Your task to perform on an android device: toggle improve location accuracy Image 0: 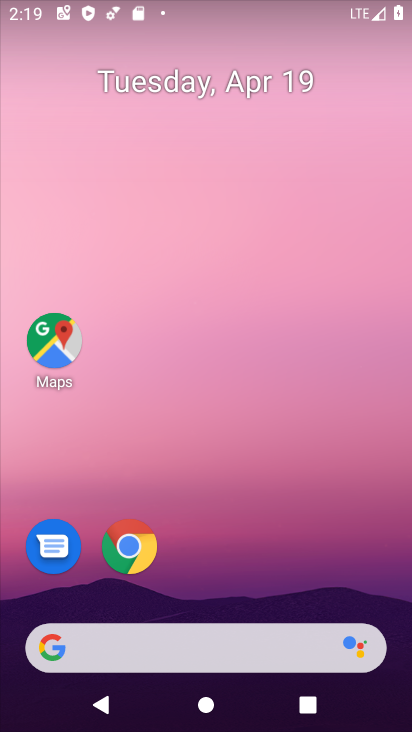
Step 0: click (131, 572)
Your task to perform on an android device: toggle improve location accuracy Image 1: 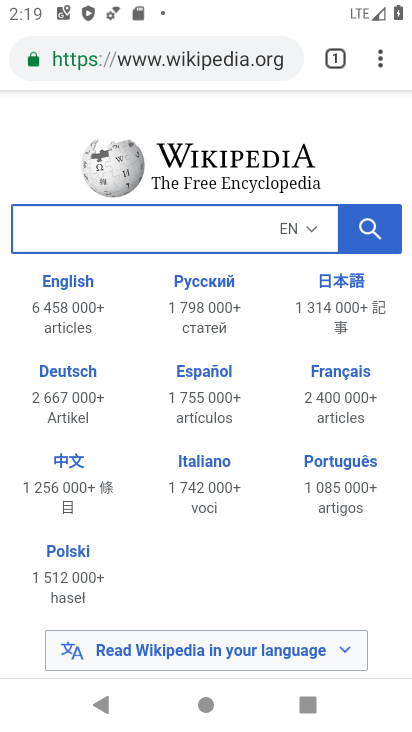
Step 1: press home button
Your task to perform on an android device: toggle improve location accuracy Image 2: 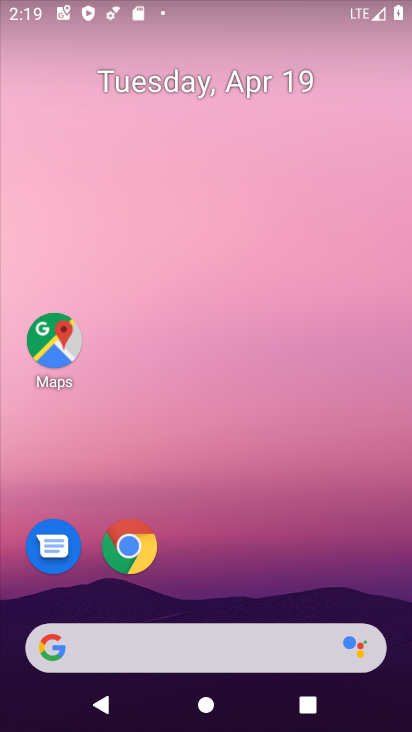
Step 2: drag from (143, 635) to (232, 91)
Your task to perform on an android device: toggle improve location accuracy Image 3: 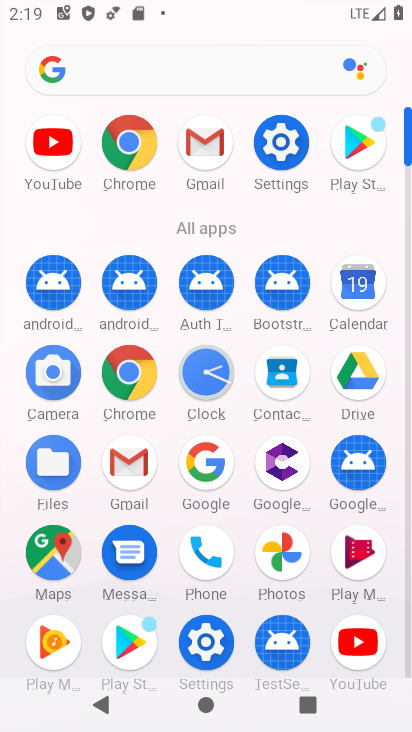
Step 3: click (292, 144)
Your task to perform on an android device: toggle improve location accuracy Image 4: 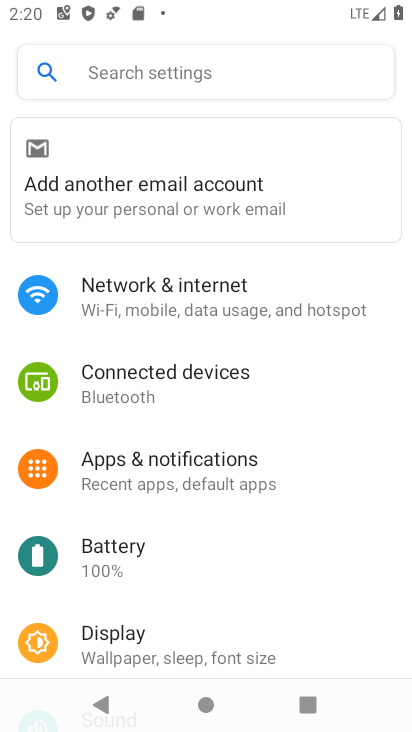
Step 4: drag from (134, 490) to (135, 133)
Your task to perform on an android device: toggle improve location accuracy Image 5: 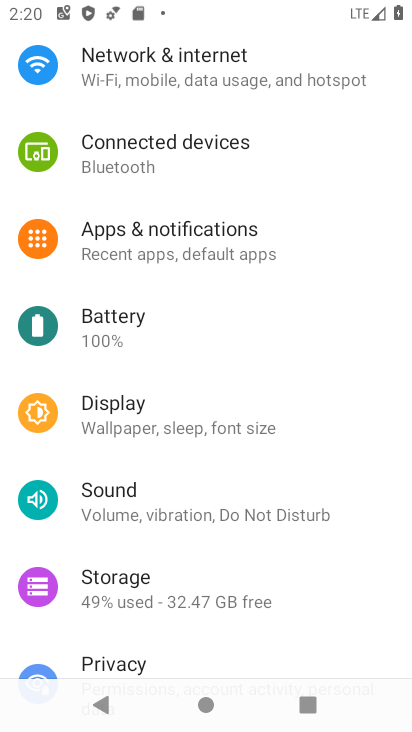
Step 5: drag from (163, 584) to (205, 169)
Your task to perform on an android device: toggle improve location accuracy Image 6: 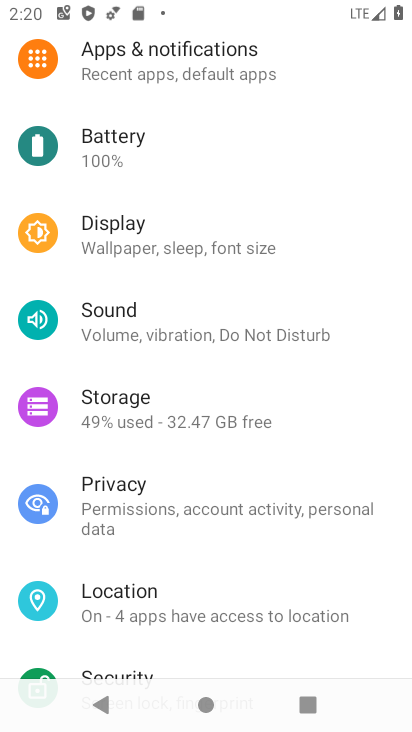
Step 6: click (101, 598)
Your task to perform on an android device: toggle improve location accuracy Image 7: 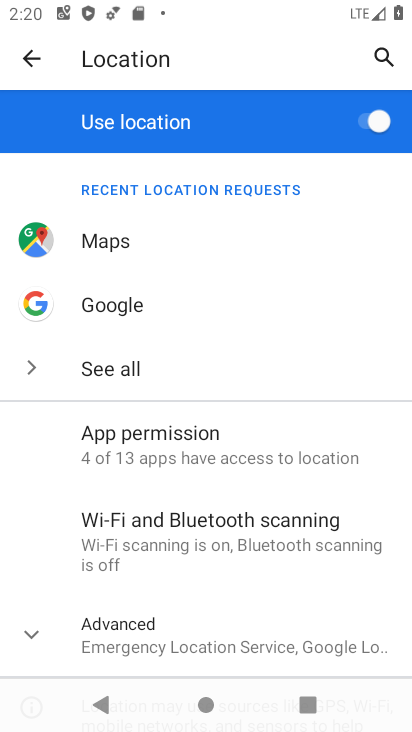
Step 7: drag from (141, 576) to (128, 160)
Your task to perform on an android device: toggle improve location accuracy Image 8: 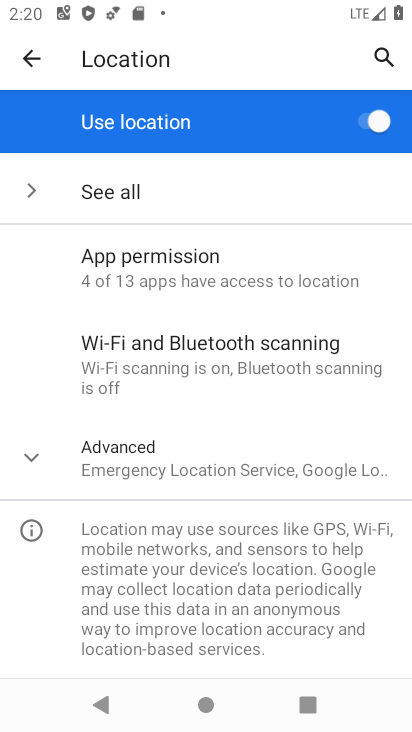
Step 8: click (104, 450)
Your task to perform on an android device: toggle improve location accuracy Image 9: 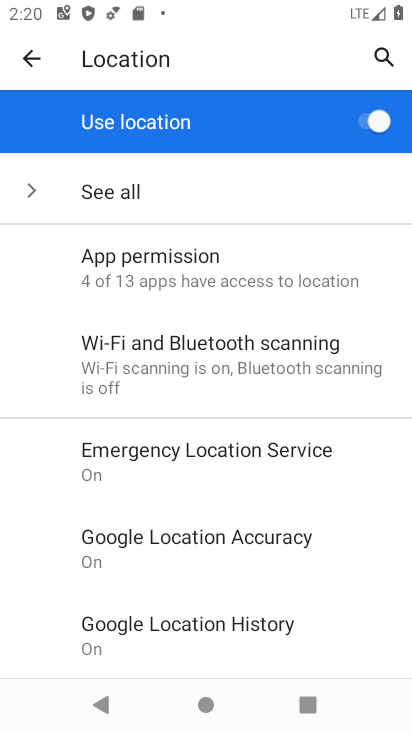
Step 9: click (155, 543)
Your task to perform on an android device: toggle improve location accuracy Image 10: 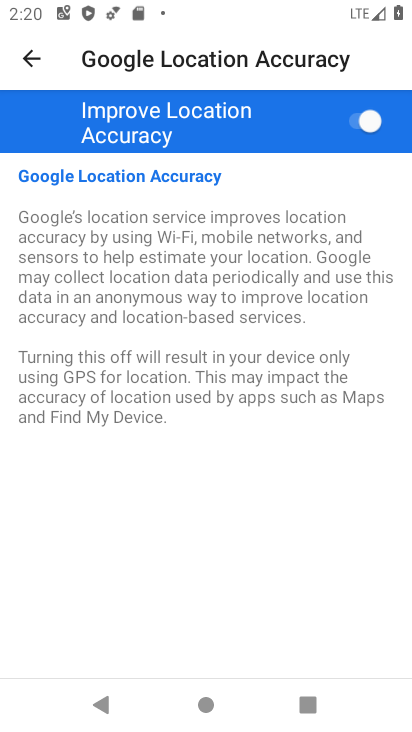
Step 10: click (355, 124)
Your task to perform on an android device: toggle improve location accuracy Image 11: 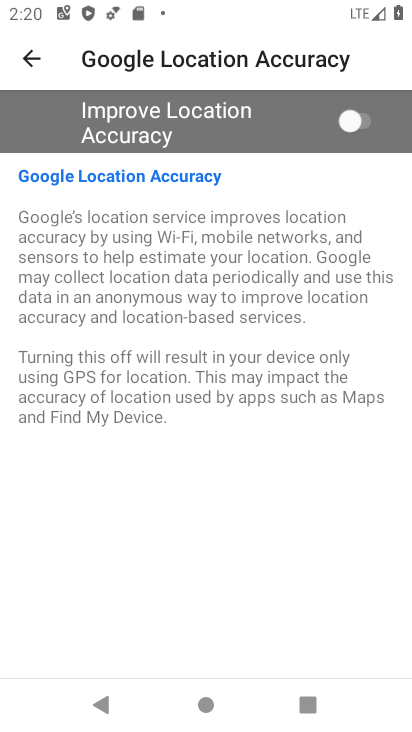
Step 11: task complete